Your task to perform on an android device: toggle show notifications on the lock screen Image 0: 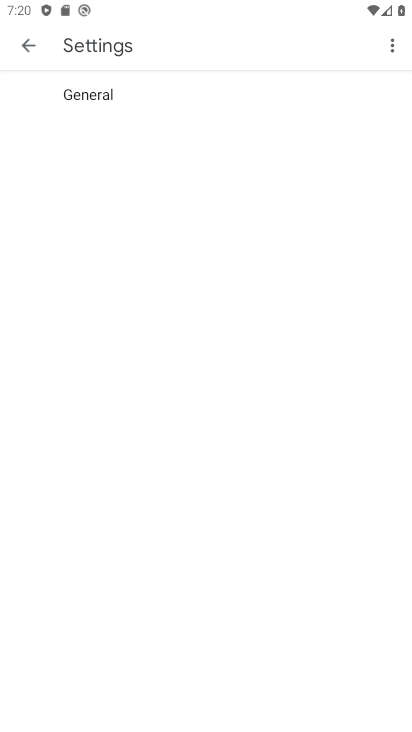
Step 0: press home button
Your task to perform on an android device: toggle show notifications on the lock screen Image 1: 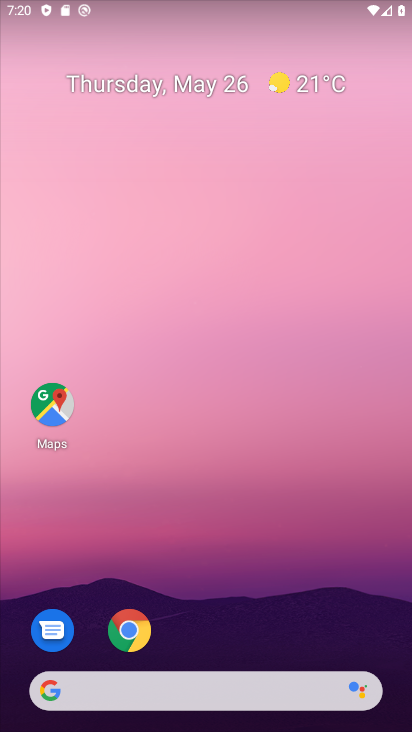
Step 1: drag from (257, 624) to (228, 60)
Your task to perform on an android device: toggle show notifications on the lock screen Image 2: 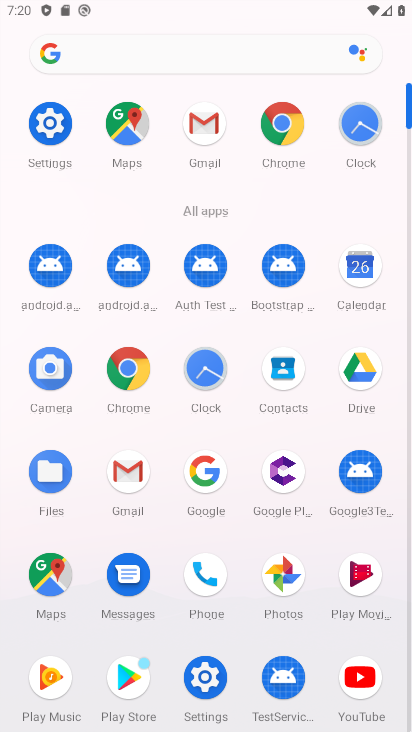
Step 2: click (50, 124)
Your task to perform on an android device: toggle show notifications on the lock screen Image 3: 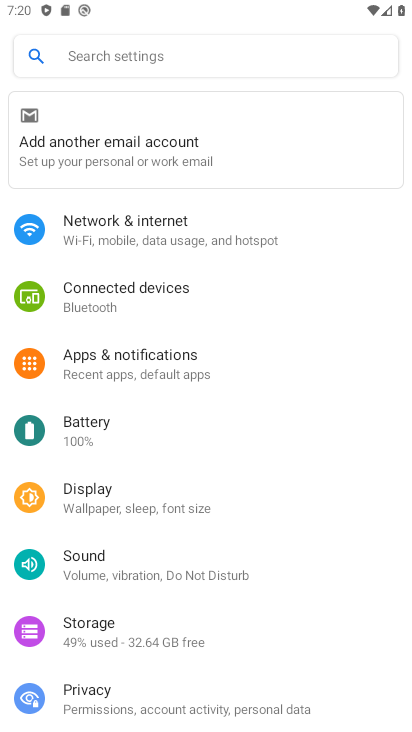
Step 3: click (167, 371)
Your task to perform on an android device: toggle show notifications on the lock screen Image 4: 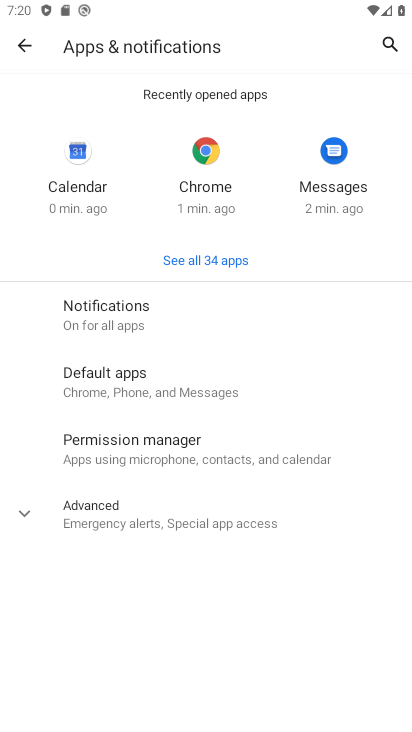
Step 4: click (127, 311)
Your task to perform on an android device: toggle show notifications on the lock screen Image 5: 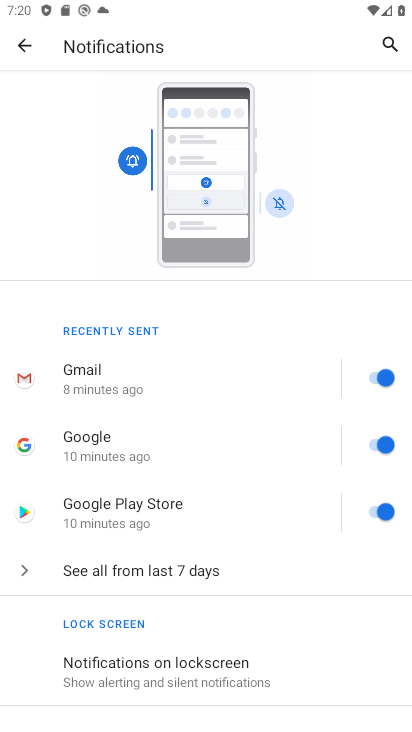
Step 5: click (161, 667)
Your task to perform on an android device: toggle show notifications on the lock screen Image 6: 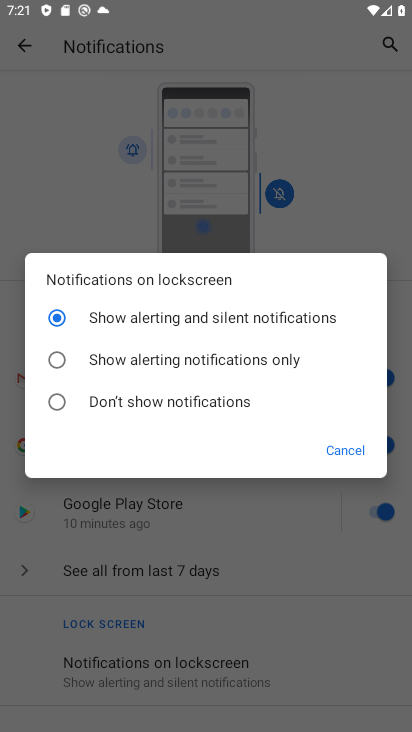
Step 6: click (52, 395)
Your task to perform on an android device: toggle show notifications on the lock screen Image 7: 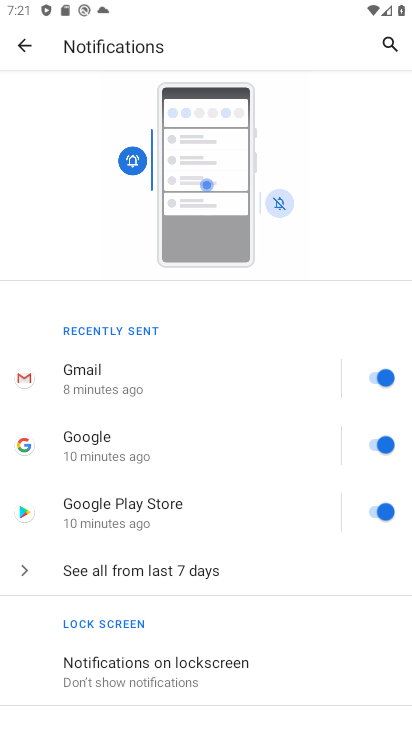
Step 7: task complete